Your task to perform on an android device: Open Google Chrome and click the shortcut for Amazon.com Image 0: 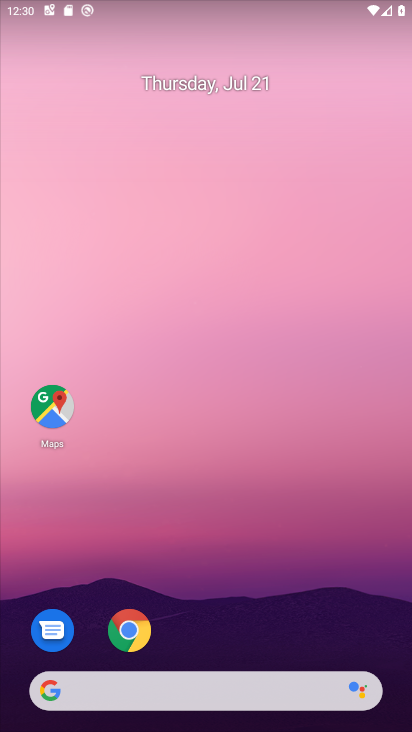
Step 0: drag from (174, 638) to (226, 240)
Your task to perform on an android device: Open Google Chrome and click the shortcut for Amazon.com Image 1: 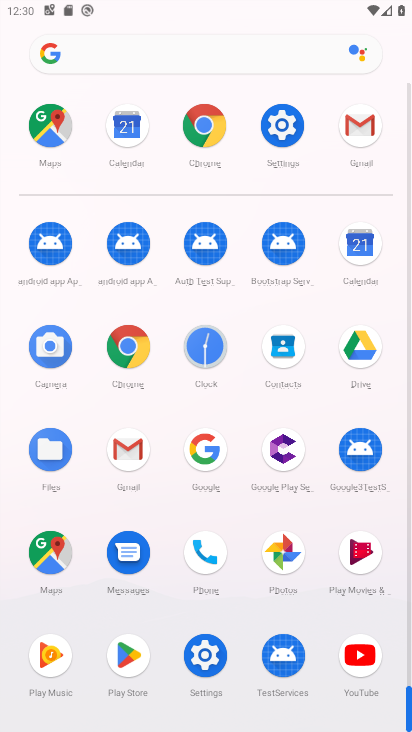
Step 1: click (202, 118)
Your task to perform on an android device: Open Google Chrome and click the shortcut for Amazon.com Image 2: 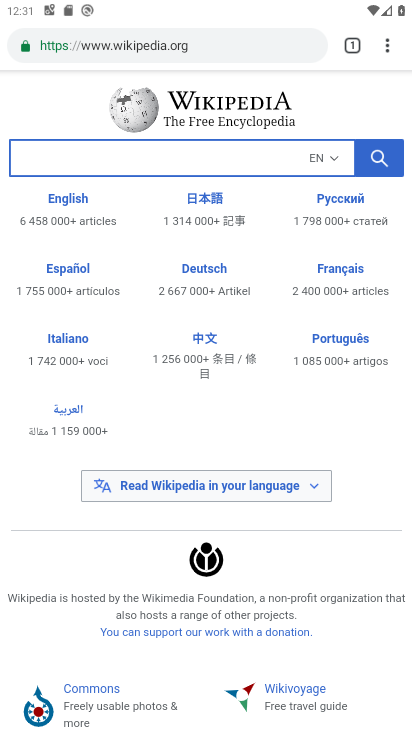
Step 2: click (355, 46)
Your task to perform on an android device: Open Google Chrome and click the shortcut for Amazon.com Image 3: 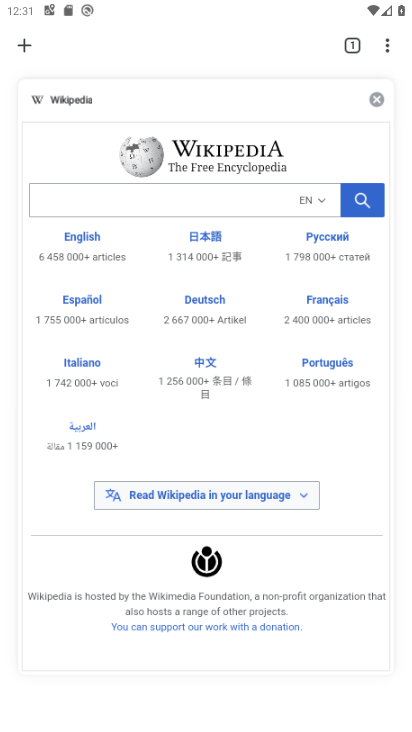
Step 3: click (20, 51)
Your task to perform on an android device: Open Google Chrome and click the shortcut for Amazon.com Image 4: 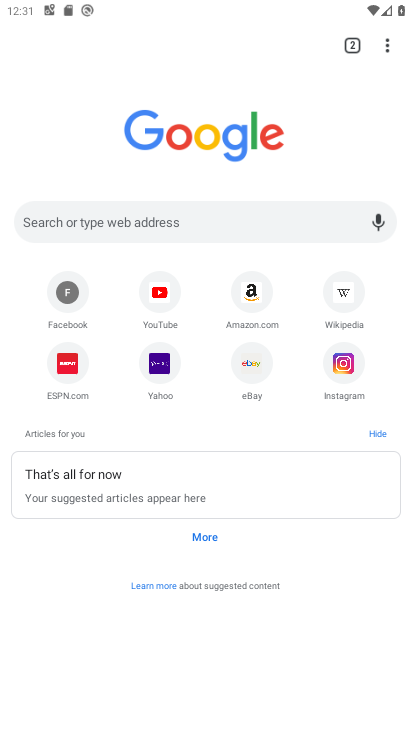
Step 4: click (261, 297)
Your task to perform on an android device: Open Google Chrome and click the shortcut for Amazon.com Image 5: 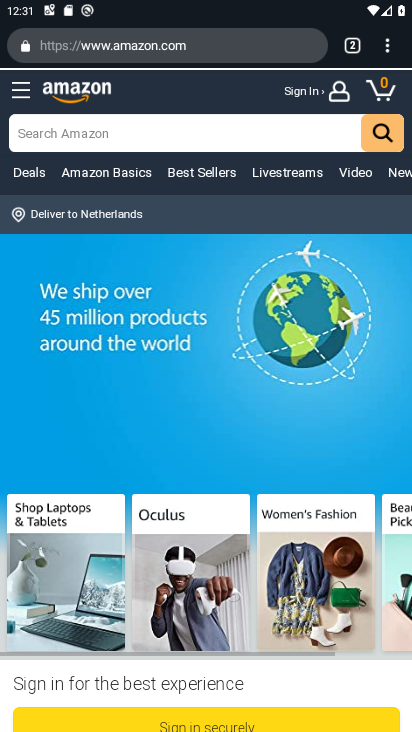
Step 5: task complete